Your task to perform on an android device: check android version Image 0: 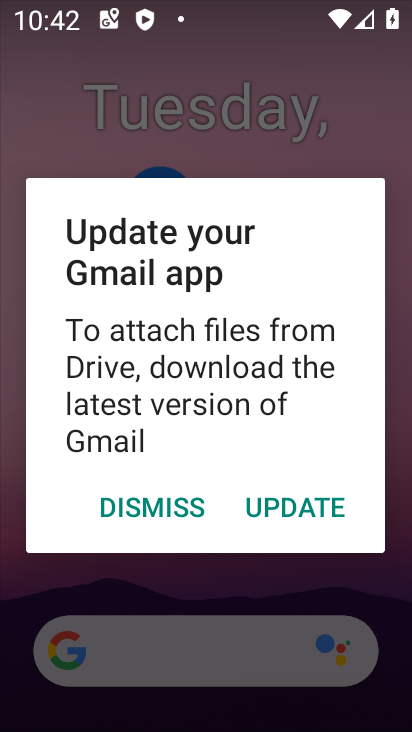
Step 0: press home button
Your task to perform on an android device: check android version Image 1: 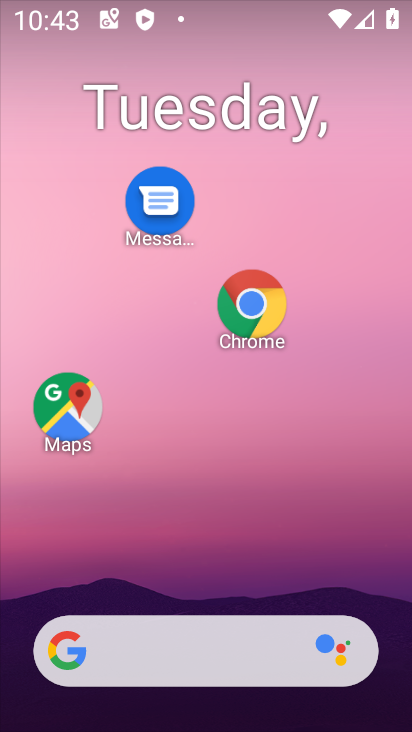
Step 1: drag from (283, 406) to (340, 120)
Your task to perform on an android device: check android version Image 2: 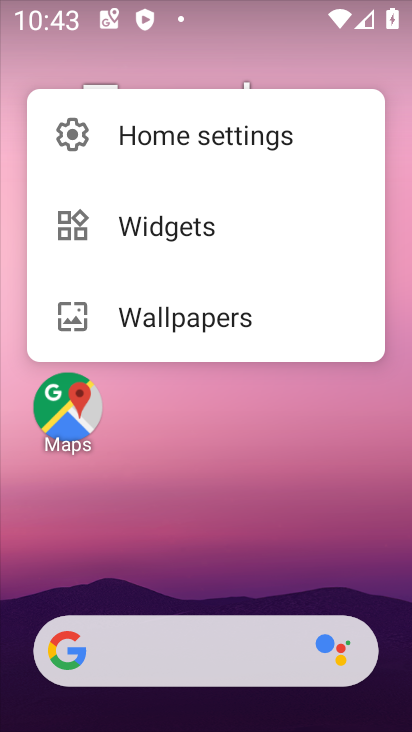
Step 2: click (275, 494)
Your task to perform on an android device: check android version Image 3: 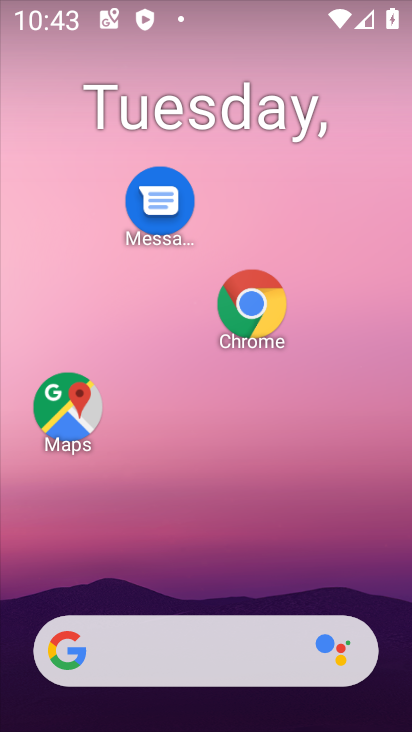
Step 3: drag from (287, 334) to (279, 103)
Your task to perform on an android device: check android version Image 4: 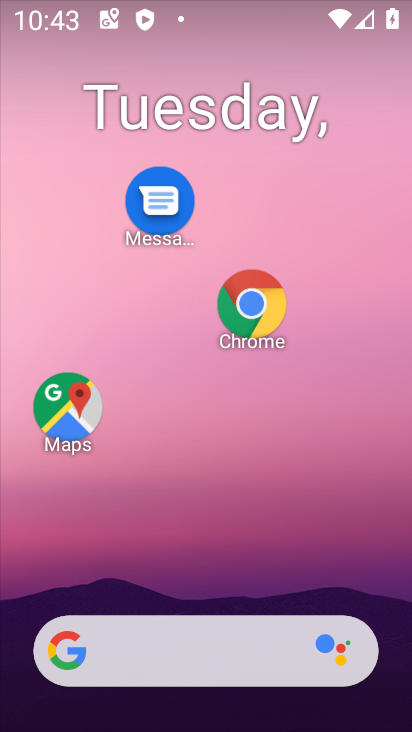
Step 4: drag from (192, 570) to (294, 46)
Your task to perform on an android device: check android version Image 5: 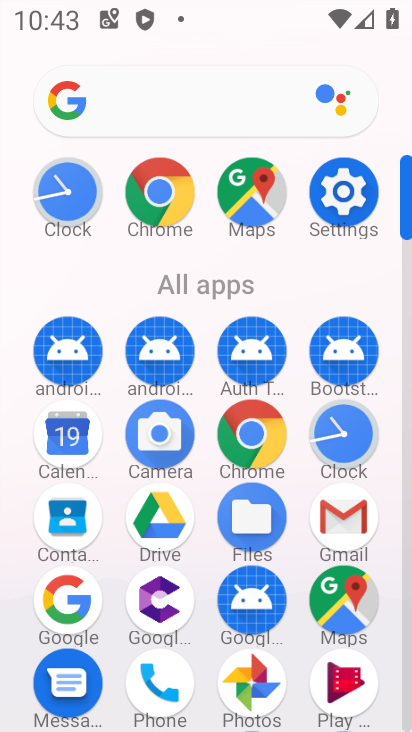
Step 5: click (361, 184)
Your task to perform on an android device: check android version Image 6: 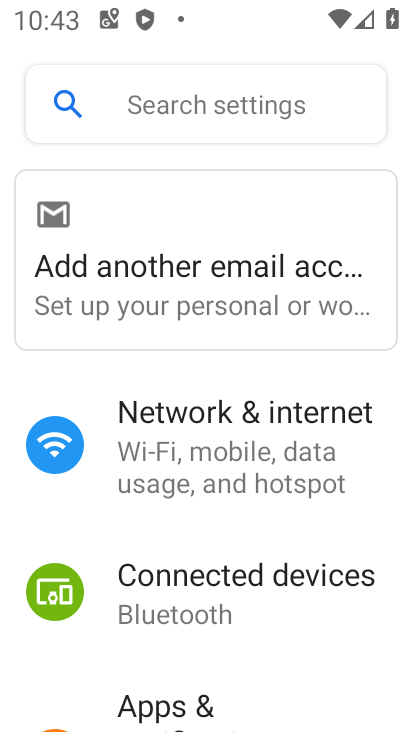
Step 6: drag from (232, 647) to (317, 180)
Your task to perform on an android device: check android version Image 7: 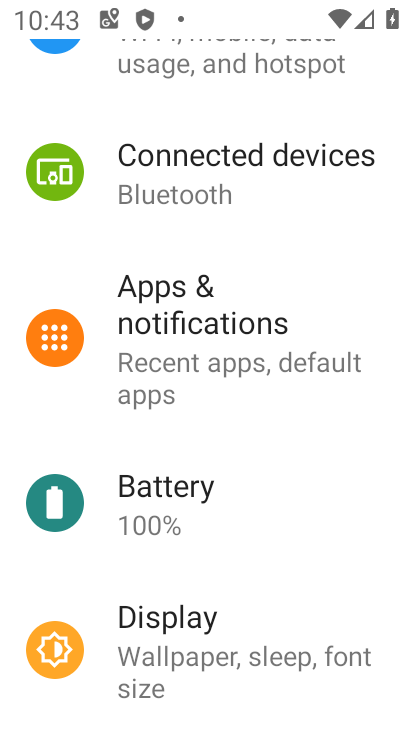
Step 7: drag from (248, 558) to (341, 172)
Your task to perform on an android device: check android version Image 8: 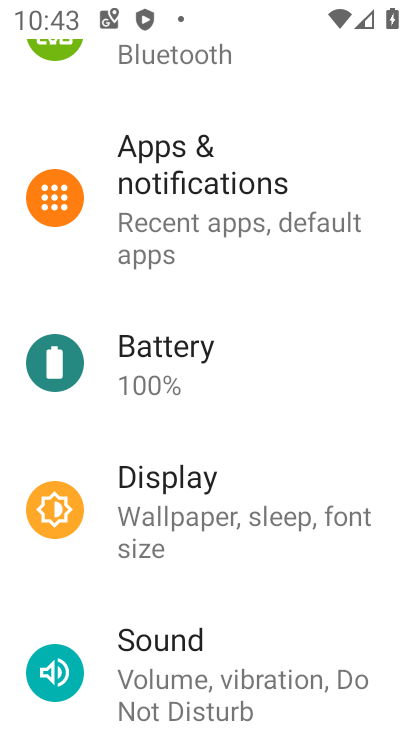
Step 8: drag from (248, 545) to (308, 128)
Your task to perform on an android device: check android version Image 9: 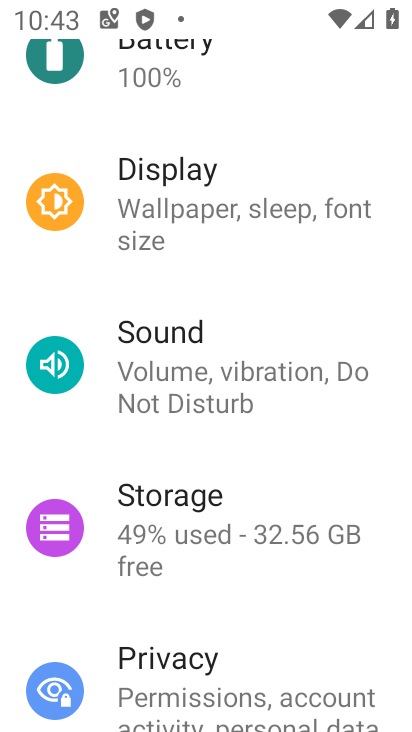
Step 9: drag from (256, 607) to (357, 146)
Your task to perform on an android device: check android version Image 10: 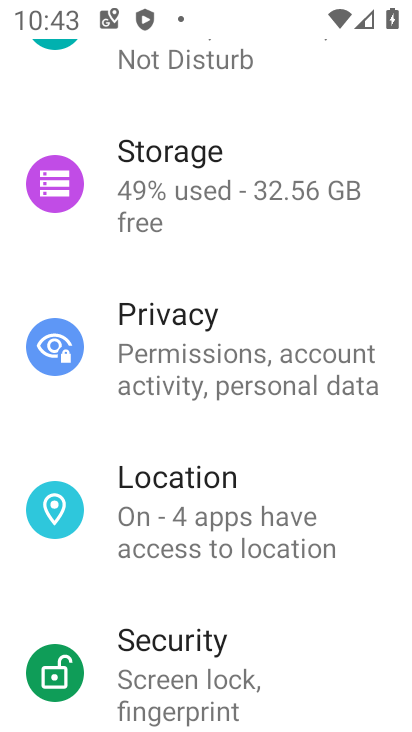
Step 10: drag from (287, 589) to (282, 144)
Your task to perform on an android device: check android version Image 11: 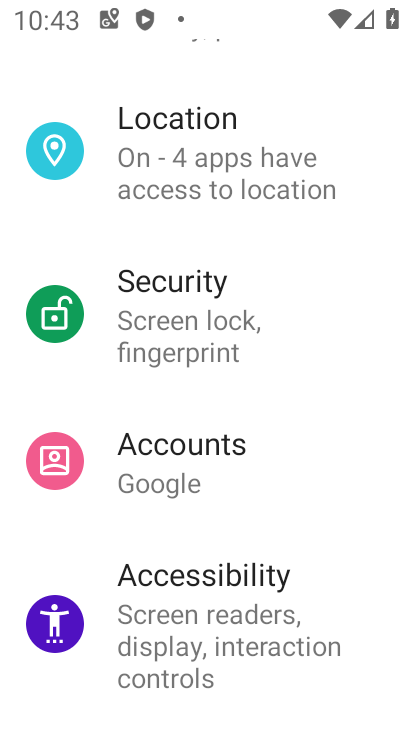
Step 11: drag from (222, 652) to (308, 119)
Your task to perform on an android device: check android version Image 12: 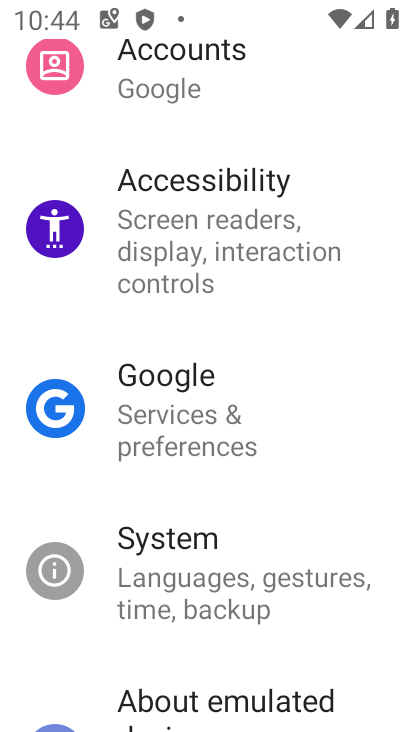
Step 12: drag from (245, 659) to (300, 125)
Your task to perform on an android device: check android version Image 13: 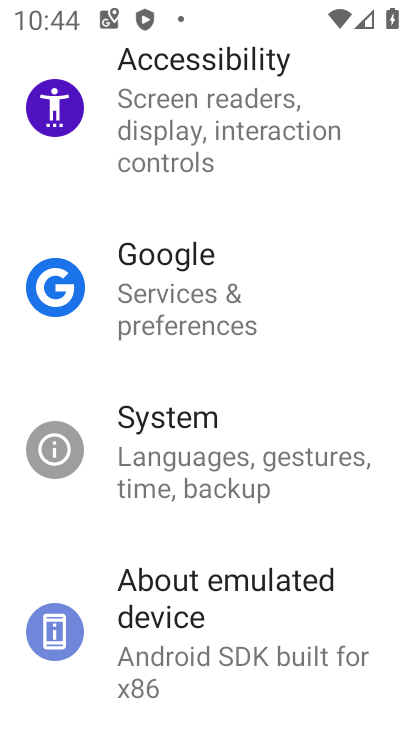
Step 13: click (191, 645)
Your task to perform on an android device: check android version Image 14: 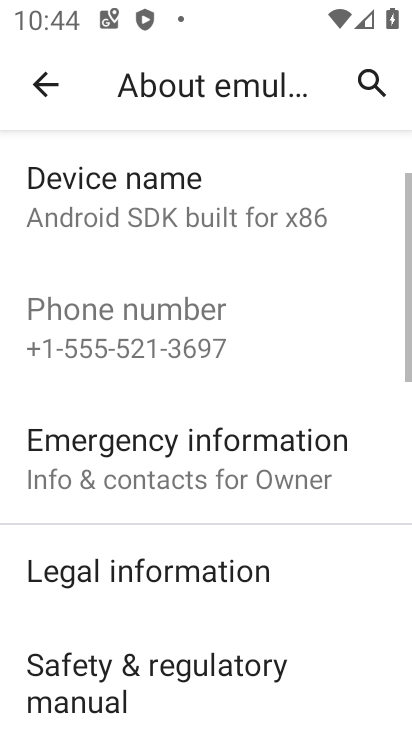
Step 14: drag from (273, 598) to (314, 128)
Your task to perform on an android device: check android version Image 15: 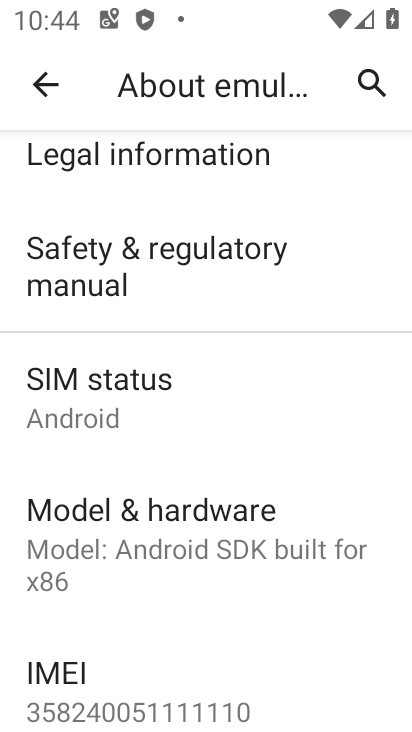
Step 15: drag from (117, 641) to (223, 200)
Your task to perform on an android device: check android version Image 16: 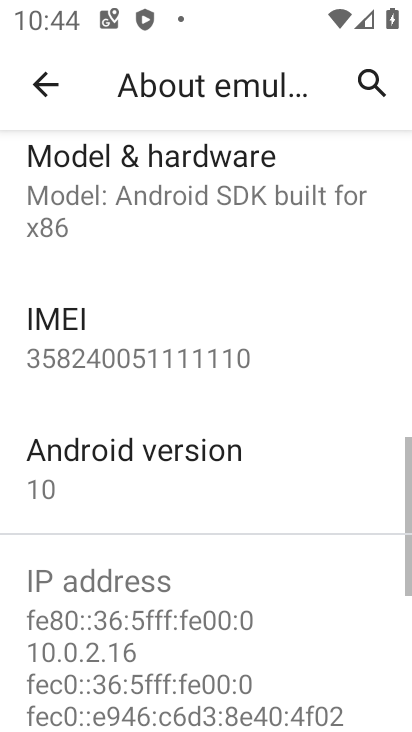
Step 16: click (152, 484)
Your task to perform on an android device: check android version Image 17: 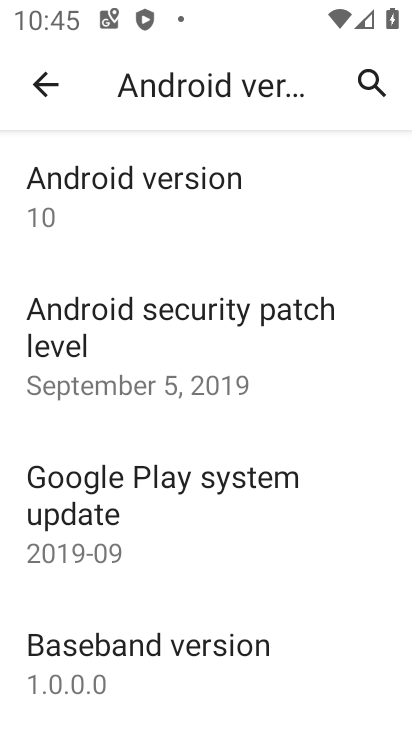
Step 17: task complete